Your task to perform on an android device: turn off picture-in-picture Image 0: 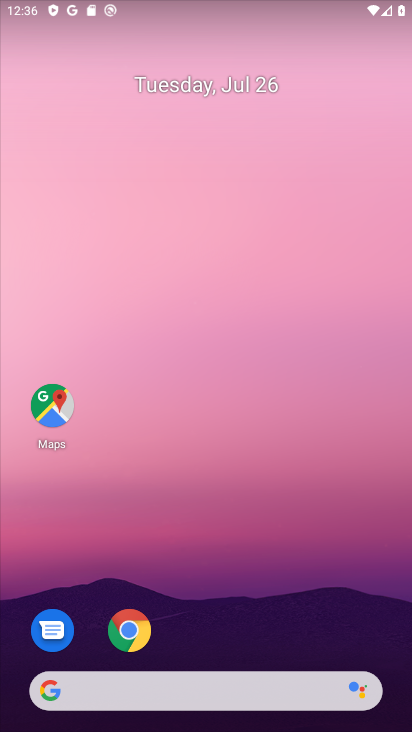
Step 0: drag from (302, 557) to (136, 150)
Your task to perform on an android device: turn off picture-in-picture Image 1: 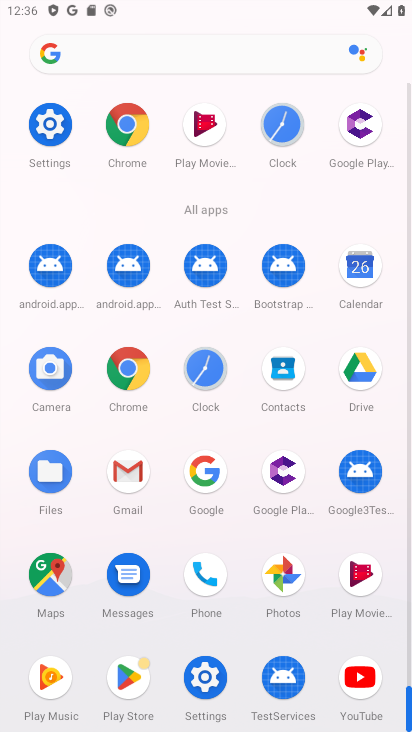
Step 1: click (127, 124)
Your task to perform on an android device: turn off picture-in-picture Image 2: 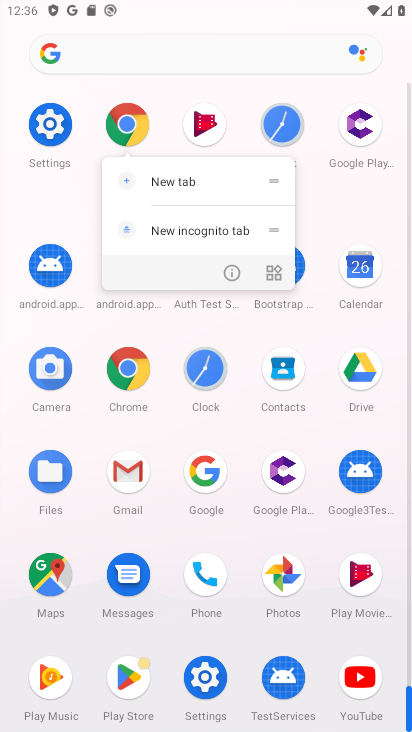
Step 2: click (218, 264)
Your task to perform on an android device: turn off picture-in-picture Image 3: 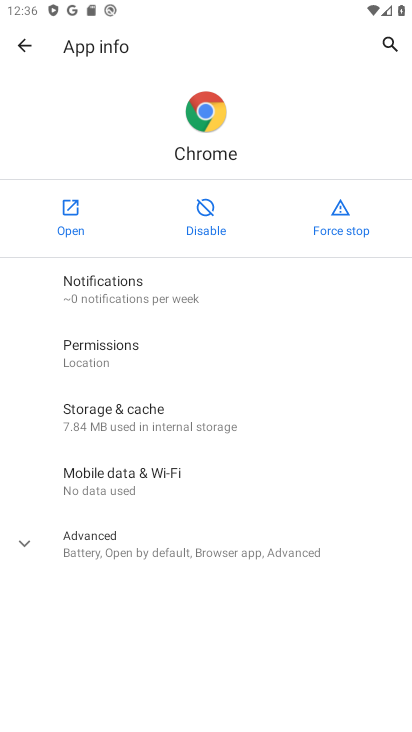
Step 3: click (214, 549)
Your task to perform on an android device: turn off picture-in-picture Image 4: 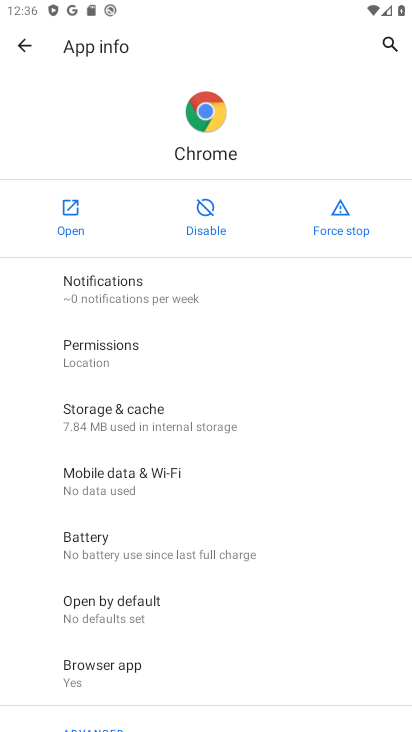
Step 4: drag from (118, 388) to (123, 24)
Your task to perform on an android device: turn off picture-in-picture Image 5: 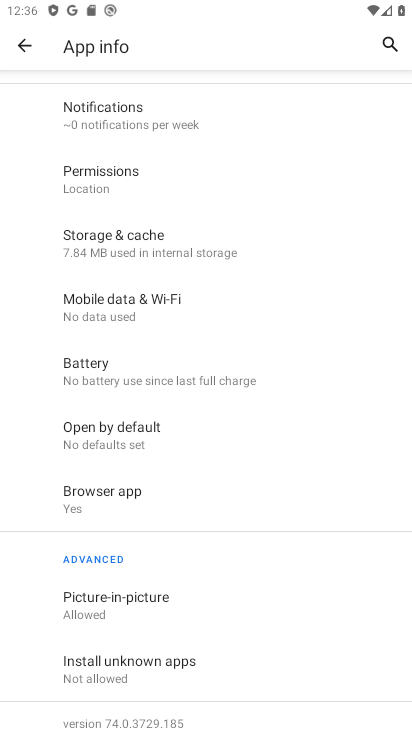
Step 5: click (99, 605)
Your task to perform on an android device: turn off picture-in-picture Image 6: 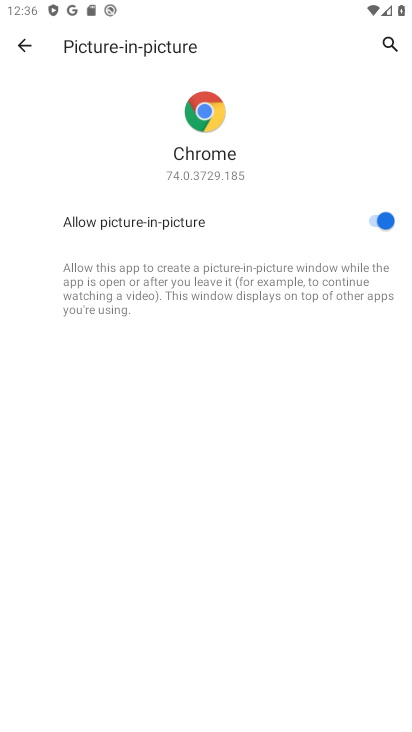
Step 6: click (373, 228)
Your task to perform on an android device: turn off picture-in-picture Image 7: 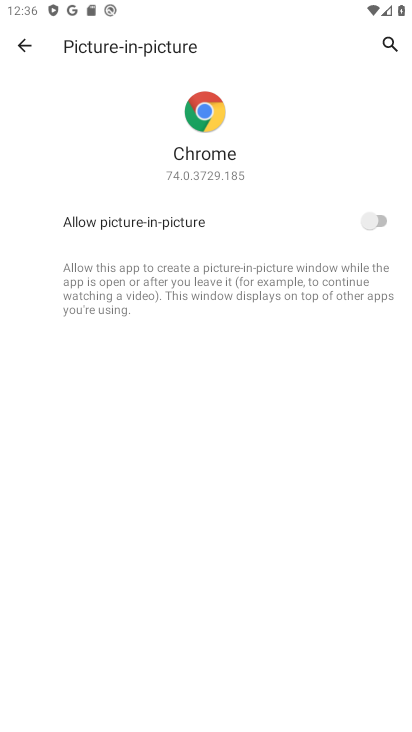
Step 7: task complete